Your task to perform on an android device: turn on the 12-hour format for clock Image 0: 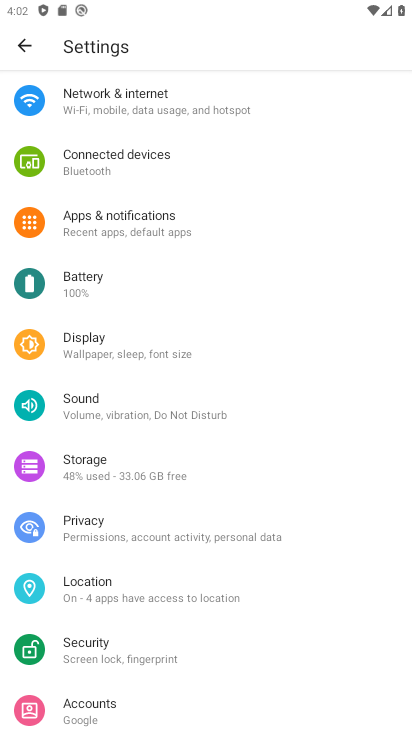
Step 0: press back button
Your task to perform on an android device: turn on the 12-hour format for clock Image 1: 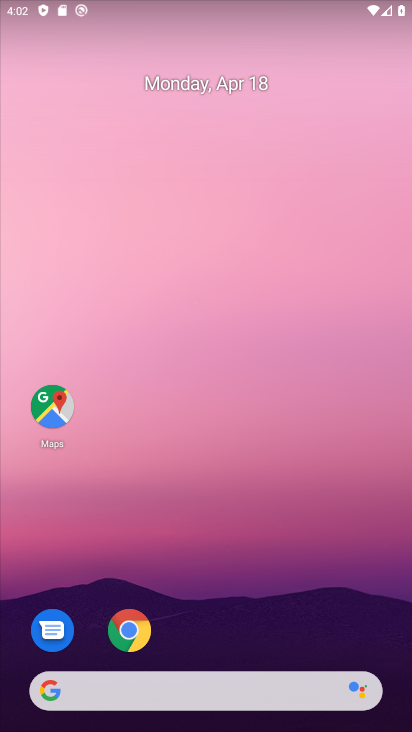
Step 1: drag from (257, 621) to (307, 11)
Your task to perform on an android device: turn on the 12-hour format for clock Image 2: 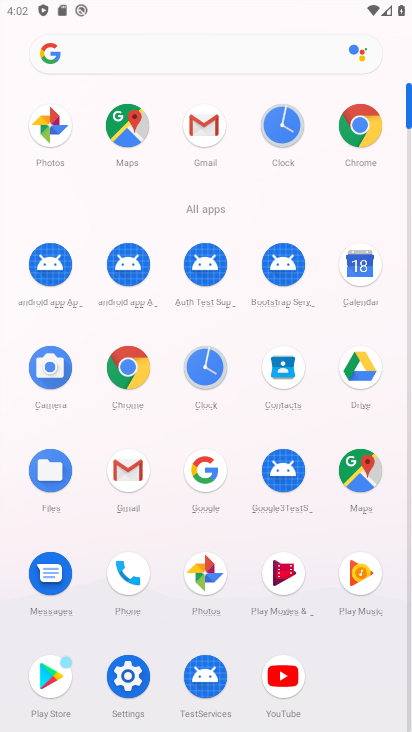
Step 2: click (278, 137)
Your task to perform on an android device: turn on the 12-hour format for clock Image 3: 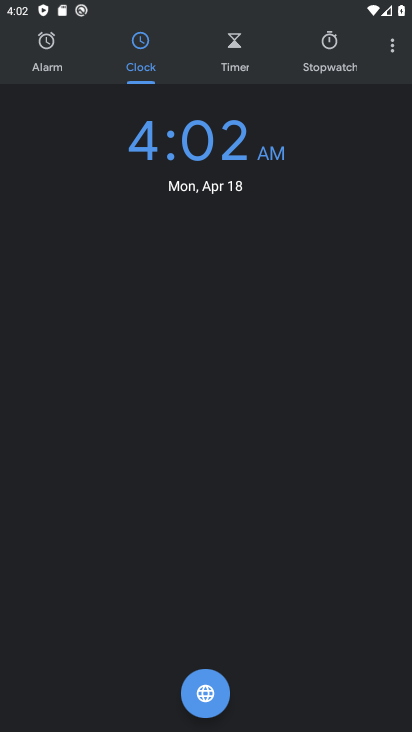
Step 3: click (392, 44)
Your task to perform on an android device: turn on the 12-hour format for clock Image 4: 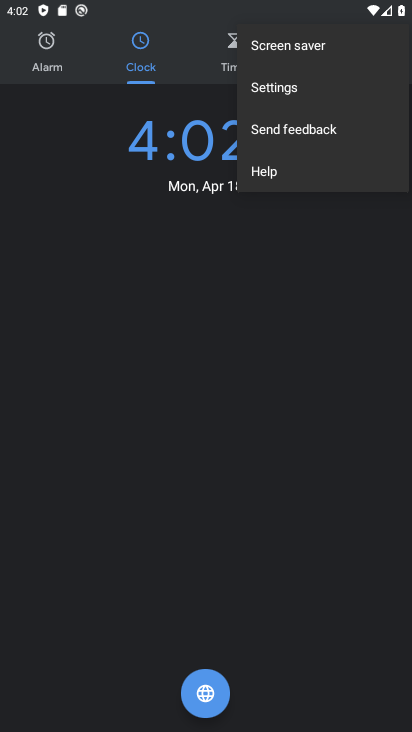
Step 4: click (295, 95)
Your task to perform on an android device: turn on the 12-hour format for clock Image 5: 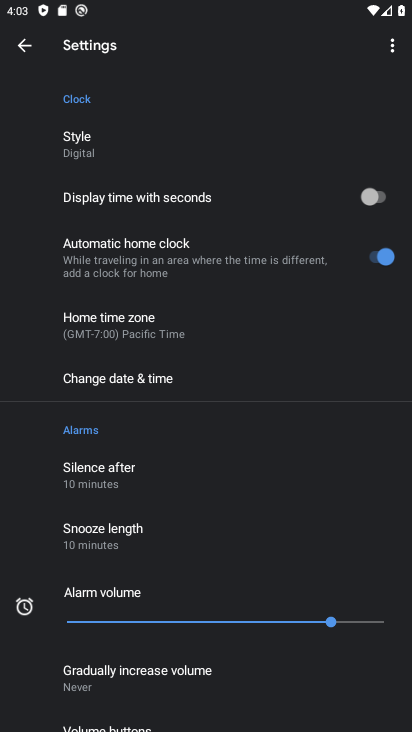
Step 5: click (145, 387)
Your task to perform on an android device: turn on the 12-hour format for clock Image 6: 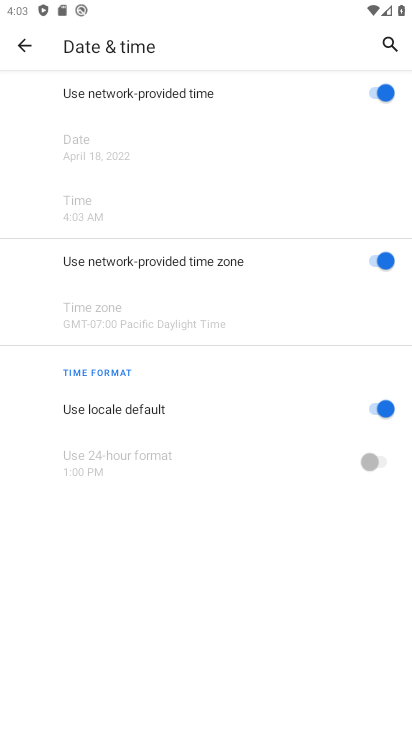
Step 6: task complete